Your task to perform on an android device: open the mobile data screen to see how much data has been used Image 0: 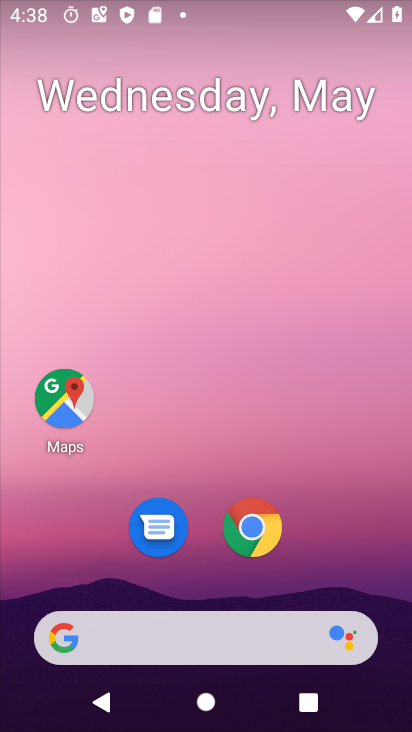
Step 0: drag from (190, 8) to (206, 502)
Your task to perform on an android device: open the mobile data screen to see how much data has been used Image 1: 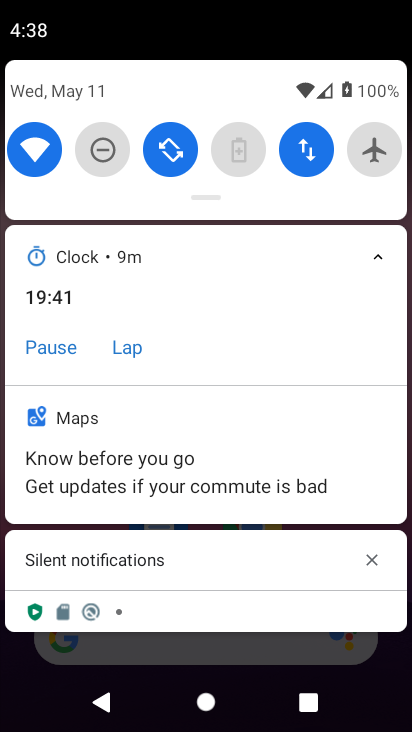
Step 1: click (291, 147)
Your task to perform on an android device: open the mobile data screen to see how much data has been used Image 2: 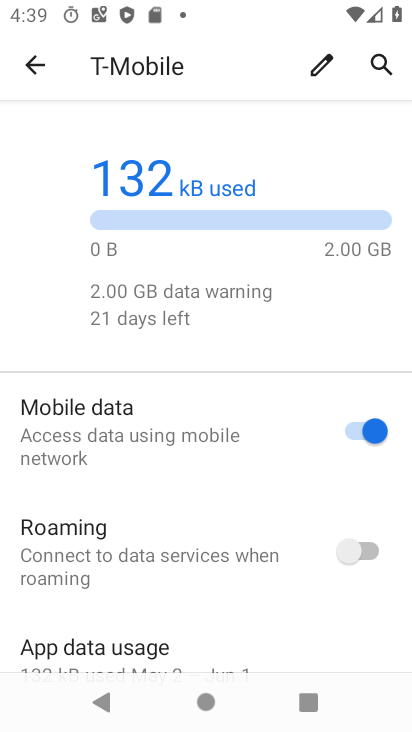
Step 2: task complete